Your task to perform on an android device: show emergency info Image 0: 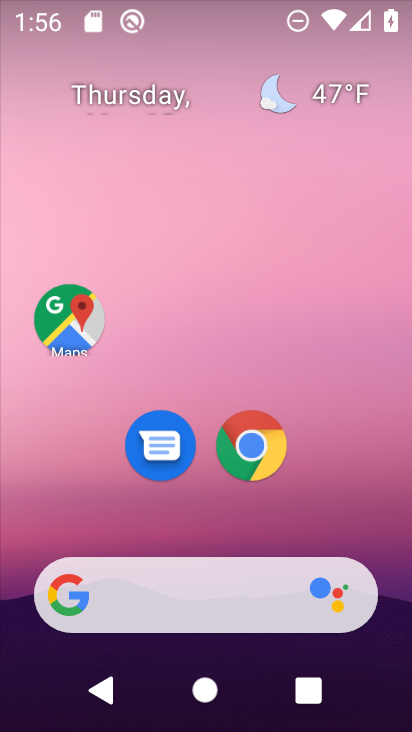
Step 0: drag from (195, 529) to (220, 224)
Your task to perform on an android device: show emergency info Image 1: 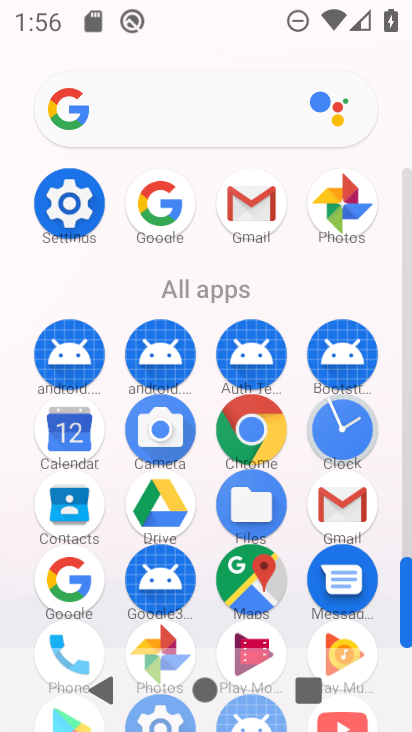
Step 1: click (101, 206)
Your task to perform on an android device: show emergency info Image 2: 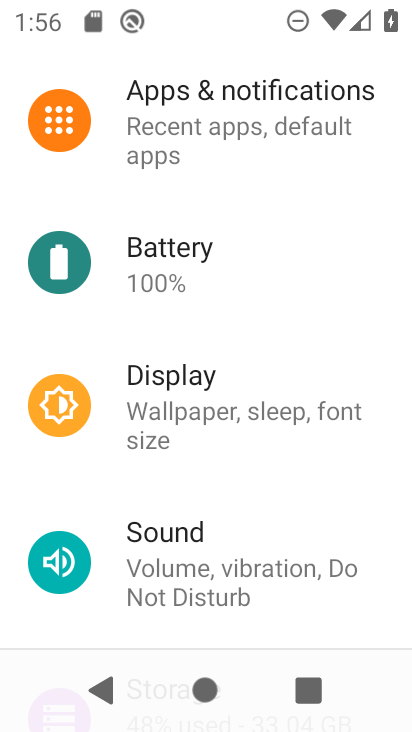
Step 2: drag from (232, 590) to (245, 270)
Your task to perform on an android device: show emergency info Image 3: 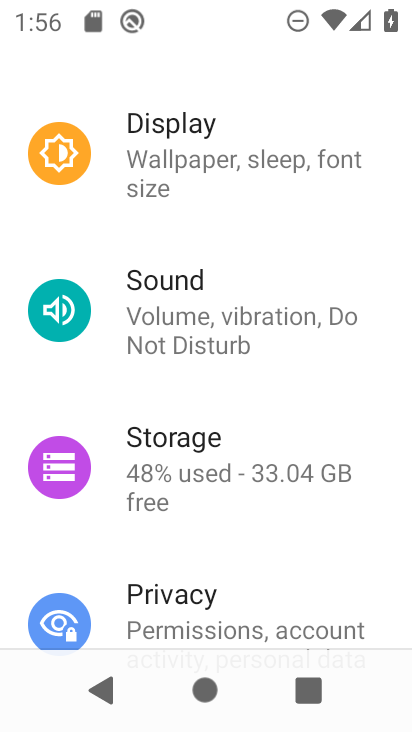
Step 3: drag from (250, 512) to (258, 262)
Your task to perform on an android device: show emergency info Image 4: 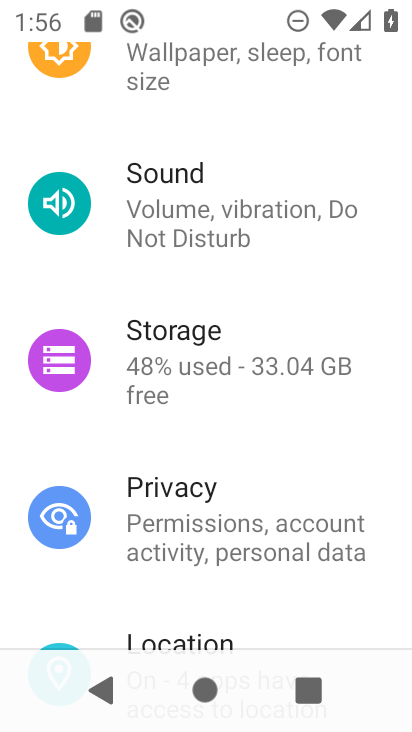
Step 4: drag from (230, 539) to (266, 299)
Your task to perform on an android device: show emergency info Image 5: 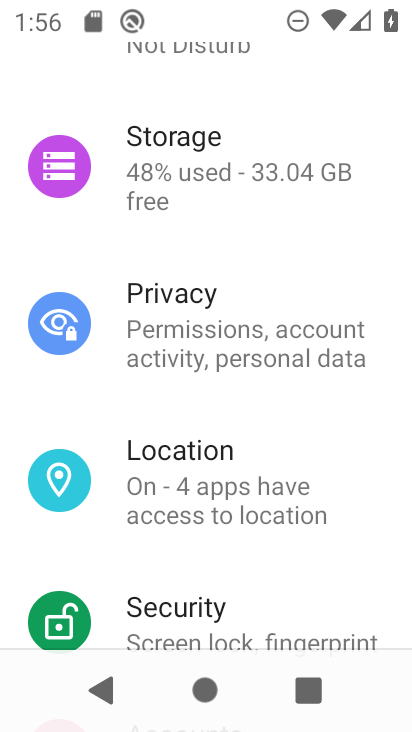
Step 5: drag from (231, 579) to (239, 373)
Your task to perform on an android device: show emergency info Image 6: 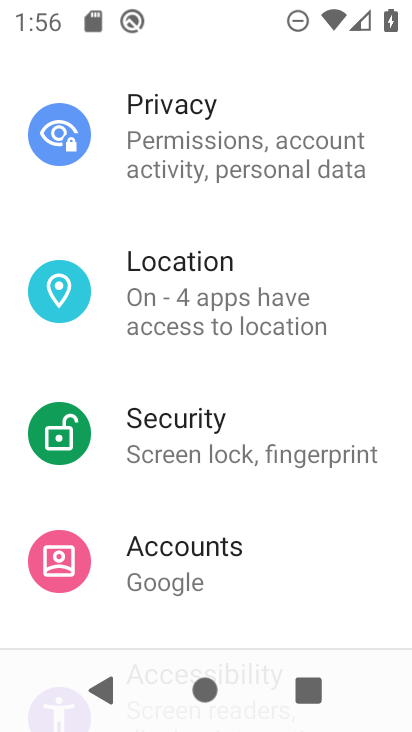
Step 6: drag from (215, 559) to (221, 386)
Your task to perform on an android device: show emergency info Image 7: 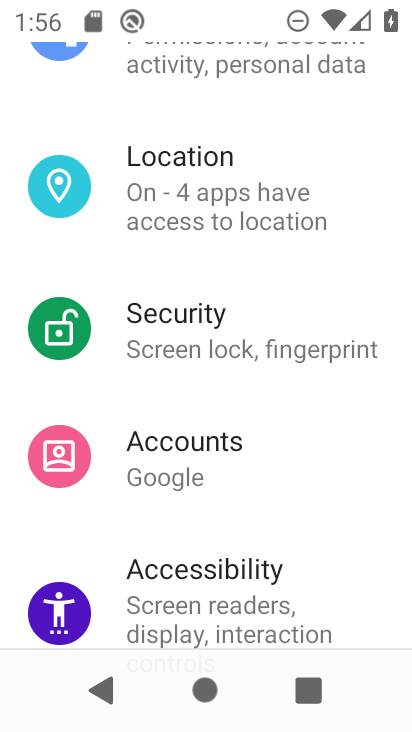
Step 7: drag from (196, 577) to (250, 378)
Your task to perform on an android device: show emergency info Image 8: 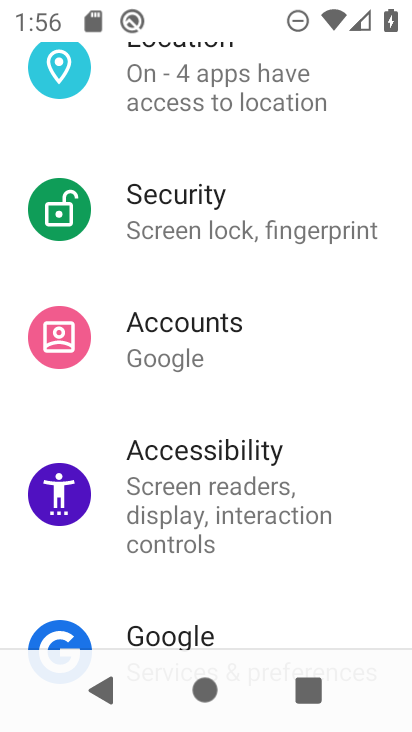
Step 8: drag from (220, 557) to (278, 349)
Your task to perform on an android device: show emergency info Image 9: 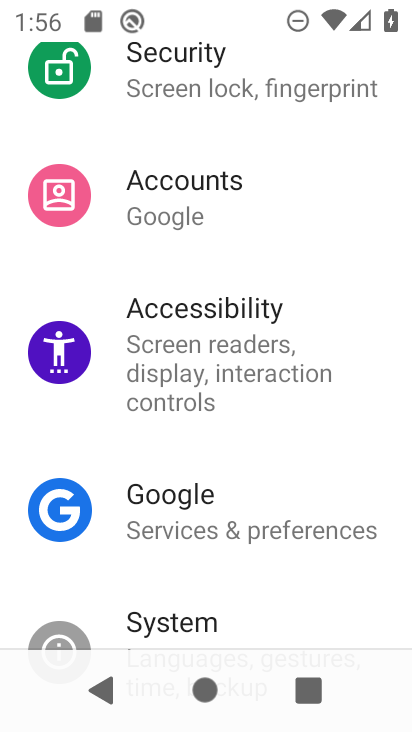
Step 9: drag from (241, 593) to (270, 346)
Your task to perform on an android device: show emergency info Image 10: 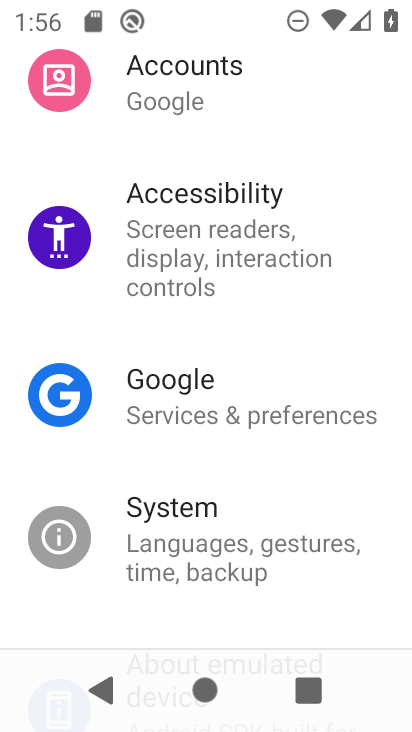
Step 10: drag from (241, 503) to (276, 343)
Your task to perform on an android device: show emergency info Image 11: 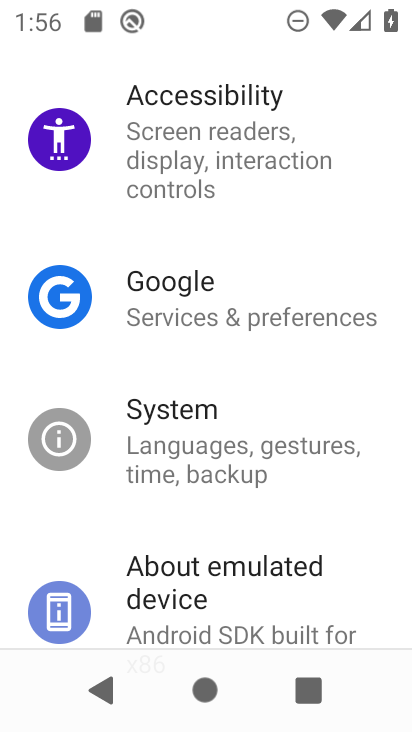
Step 11: click (244, 557)
Your task to perform on an android device: show emergency info Image 12: 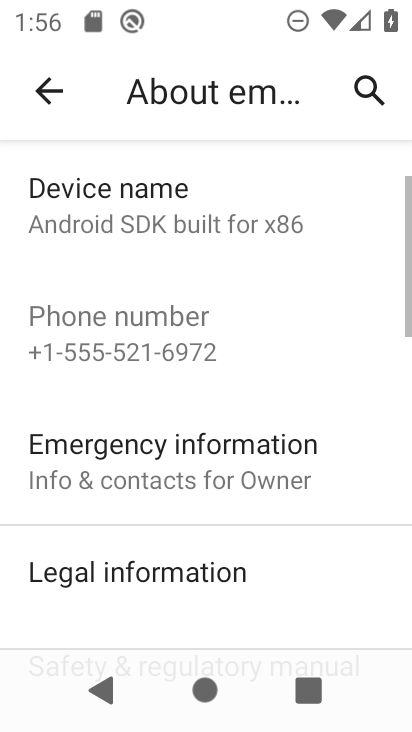
Step 12: click (203, 487)
Your task to perform on an android device: show emergency info Image 13: 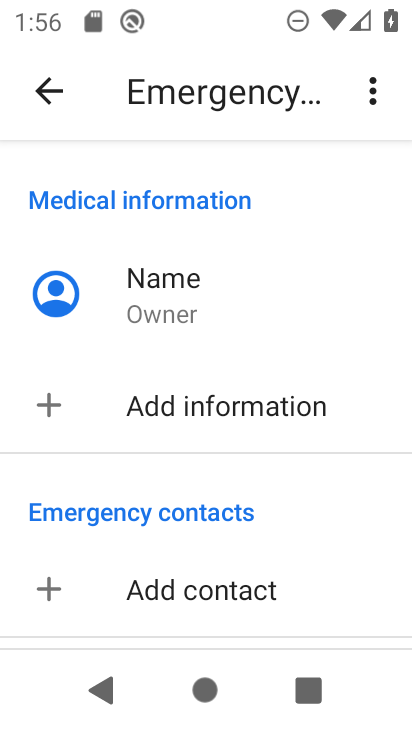
Step 13: task complete